Your task to perform on an android device: turn on wifi Image 0: 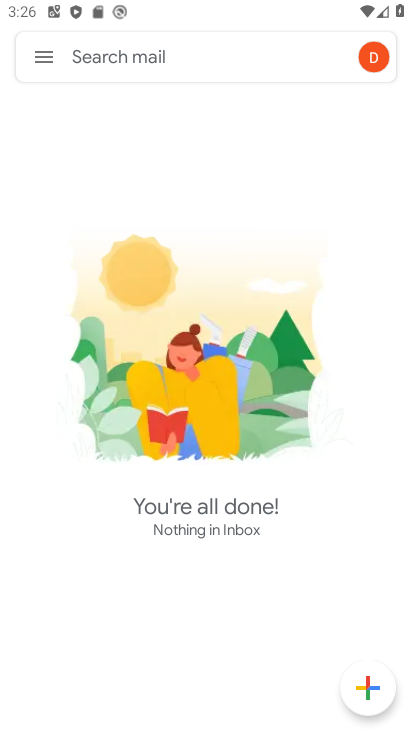
Step 0: drag from (274, 6) to (278, 579)
Your task to perform on an android device: turn on wifi Image 1: 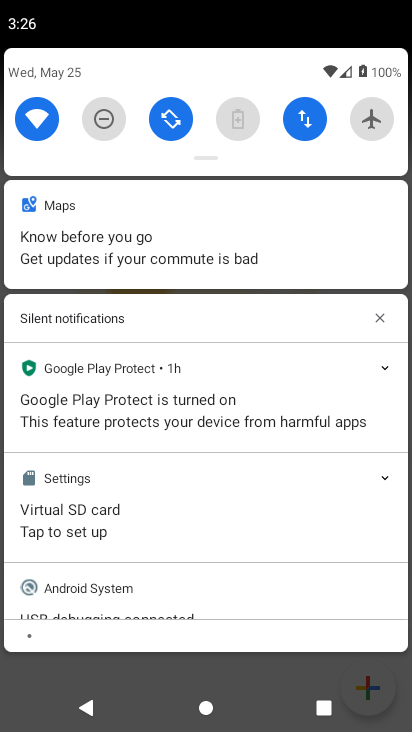
Step 1: task complete